Your task to perform on an android device: Go to battery settings Image 0: 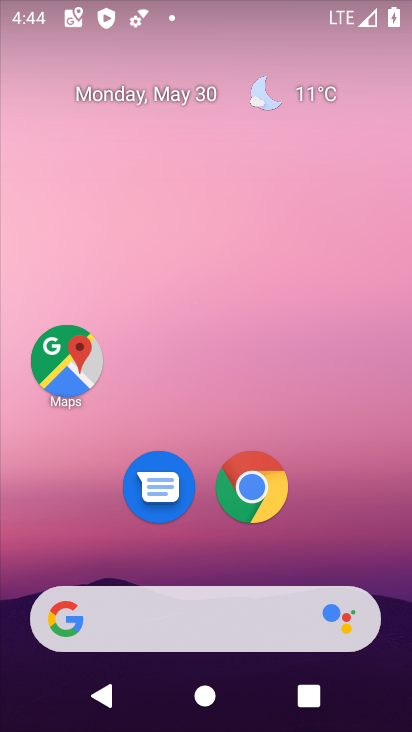
Step 0: drag from (388, 611) to (354, 88)
Your task to perform on an android device: Go to battery settings Image 1: 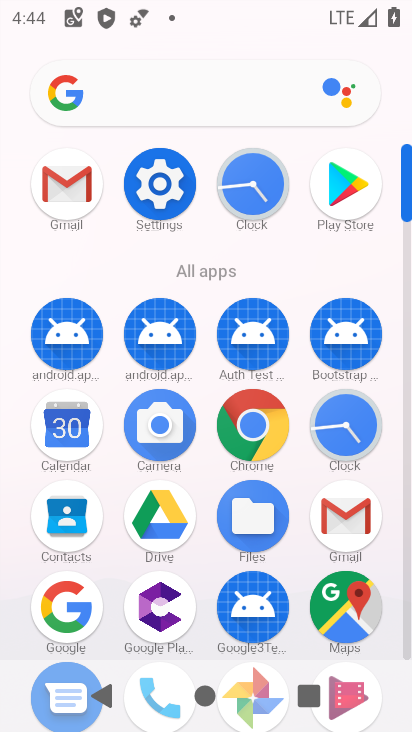
Step 1: click (409, 646)
Your task to perform on an android device: Go to battery settings Image 2: 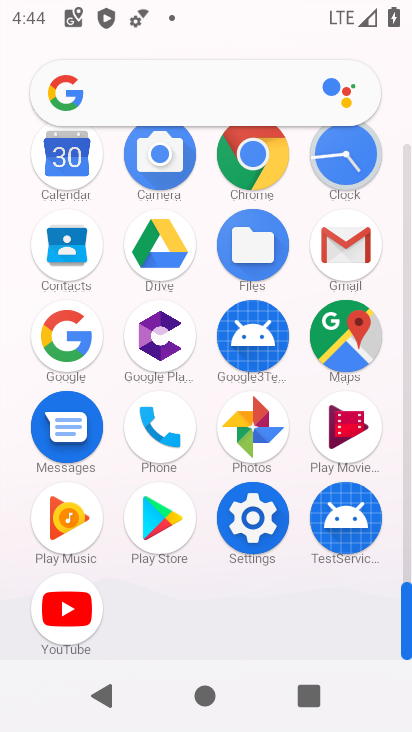
Step 2: click (254, 517)
Your task to perform on an android device: Go to battery settings Image 3: 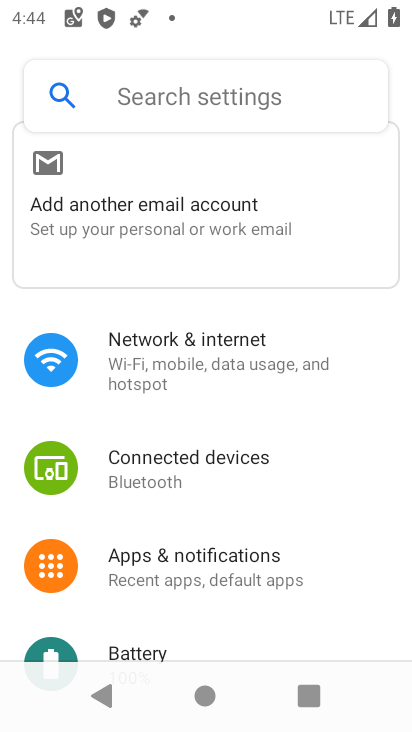
Step 3: drag from (325, 544) to (323, 127)
Your task to perform on an android device: Go to battery settings Image 4: 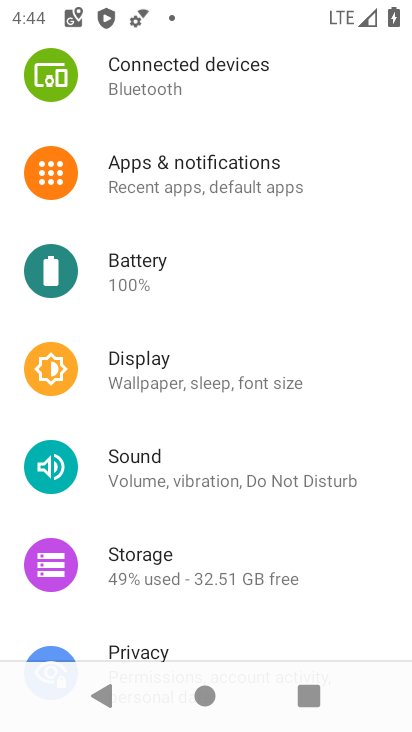
Step 4: click (140, 255)
Your task to perform on an android device: Go to battery settings Image 5: 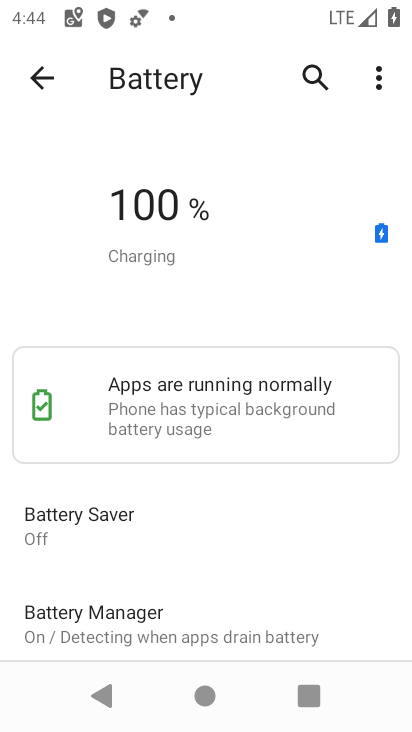
Step 5: task complete